Your task to perform on an android device: turn on location history Image 0: 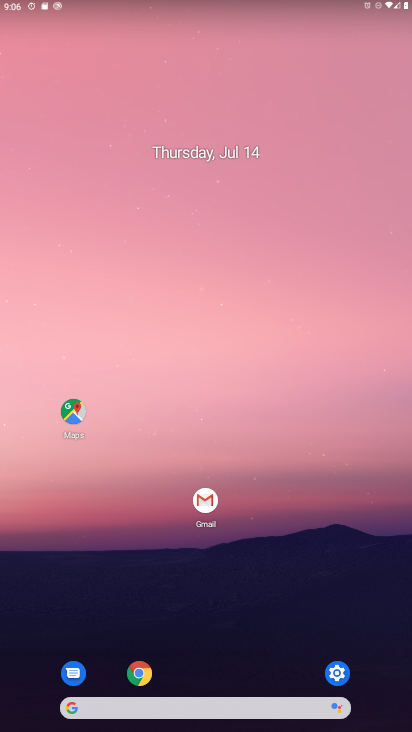
Step 0: press home button
Your task to perform on an android device: turn on location history Image 1: 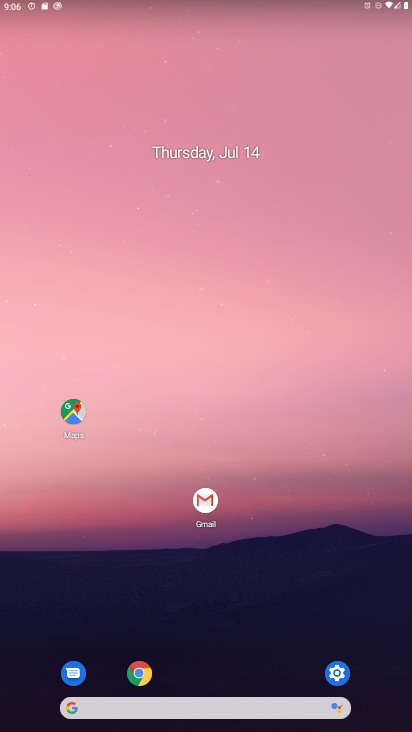
Step 1: click (341, 669)
Your task to perform on an android device: turn on location history Image 2: 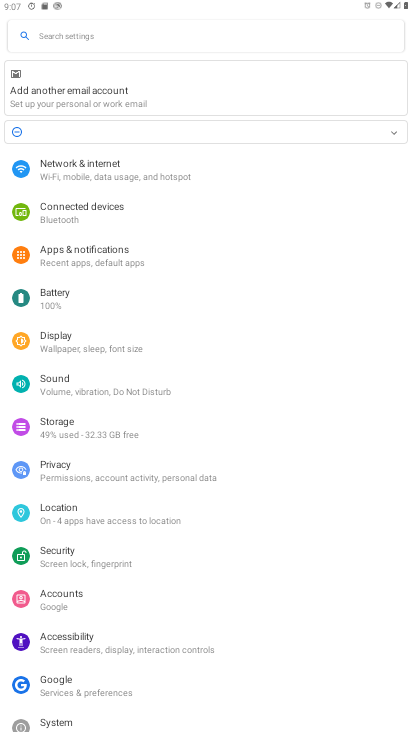
Step 2: click (80, 515)
Your task to perform on an android device: turn on location history Image 3: 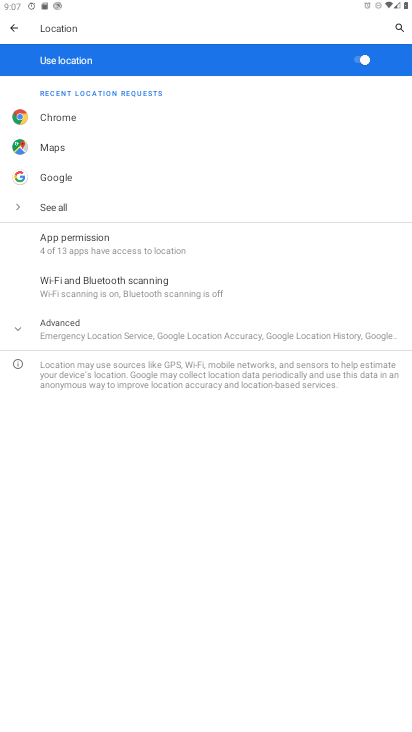
Step 3: click (30, 332)
Your task to perform on an android device: turn on location history Image 4: 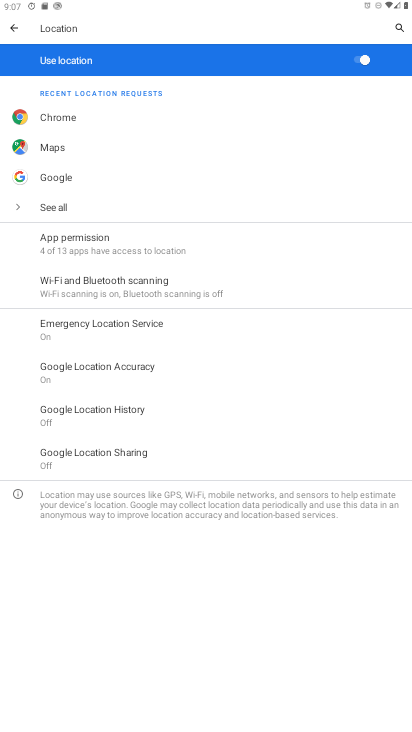
Step 4: click (98, 414)
Your task to perform on an android device: turn on location history Image 5: 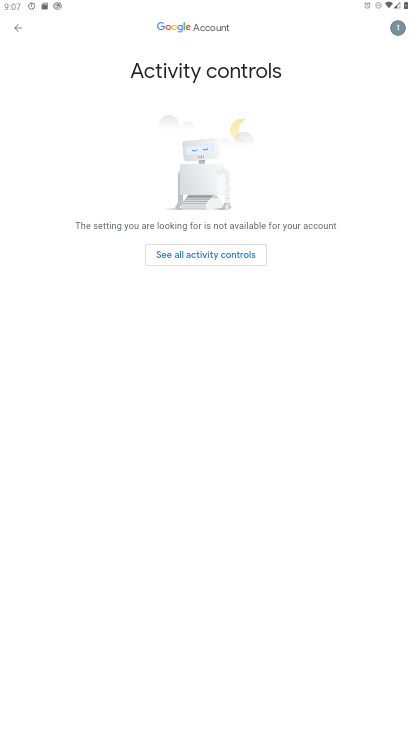
Step 5: click (163, 258)
Your task to perform on an android device: turn on location history Image 6: 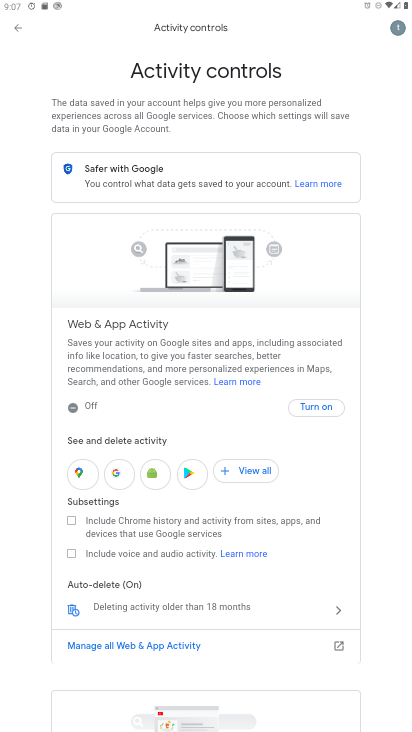
Step 6: task complete